Your task to perform on an android device: set default search engine in the chrome app Image 0: 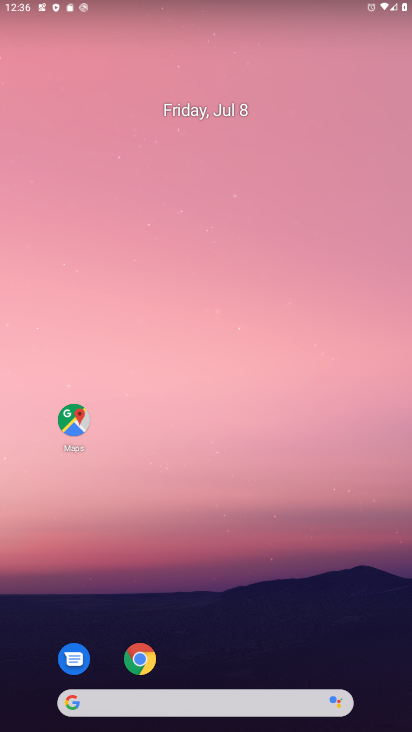
Step 0: click (138, 657)
Your task to perform on an android device: set default search engine in the chrome app Image 1: 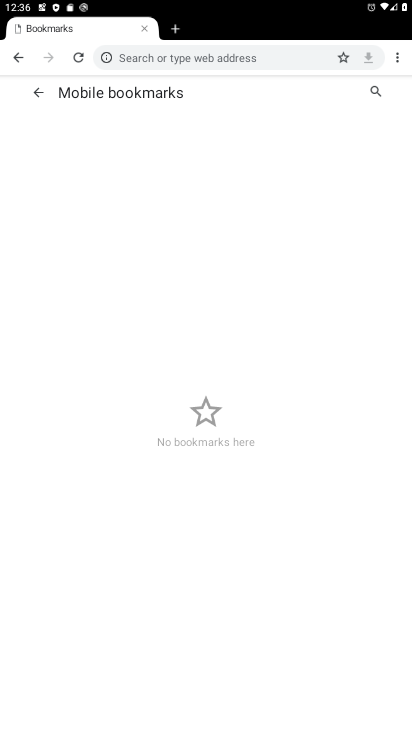
Step 1: click (40, 95)
Your task to perform on an android device: set default search engine in the chrome app Image 2: 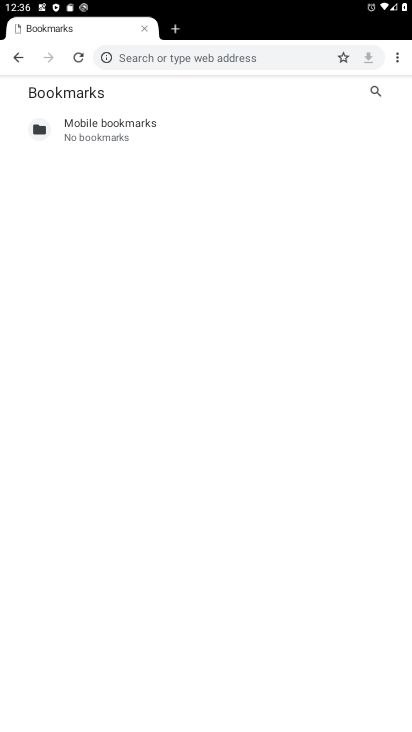
Step 2: click (9, 50)
Your task to perform on an android device: set default search engine in the chrome app Image 3: 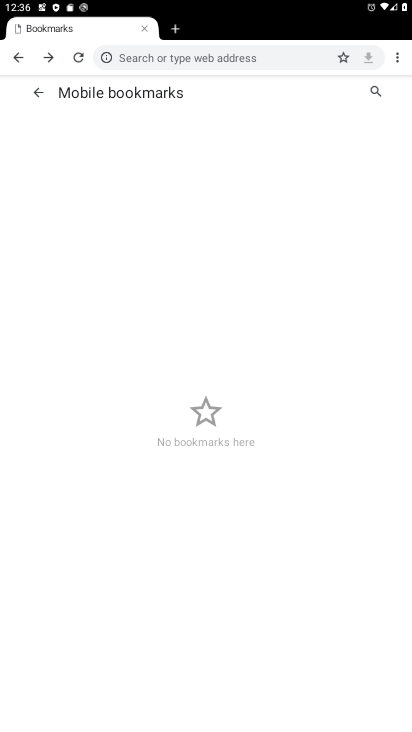
Step 3: click (395, 55)
Your task to perform on an android device: set default search engine in the chrome app Image 4: 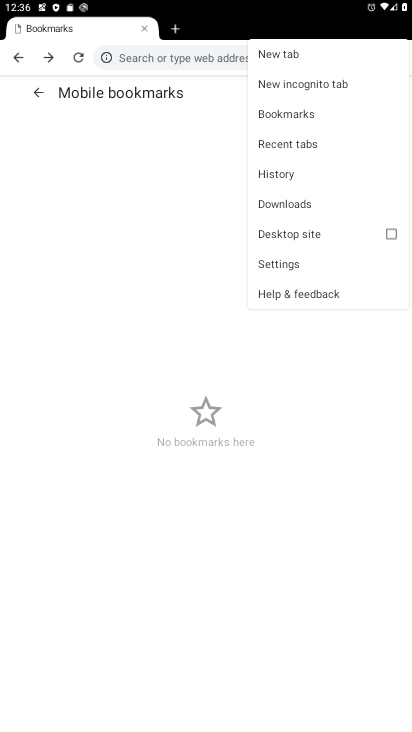
Step 4: click (295, 258)
Your task to perform on an android device: set default search engine in the chrome app Image 5: 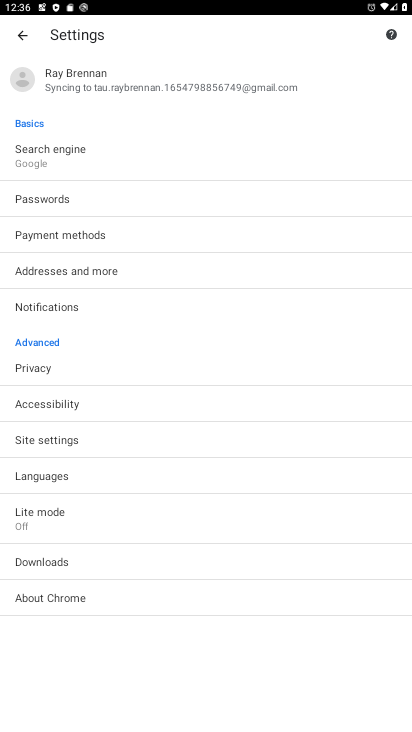
Step 5: click (46, 158)
Your task to perform on an android device: set default search engine in the chrome app Image 6: 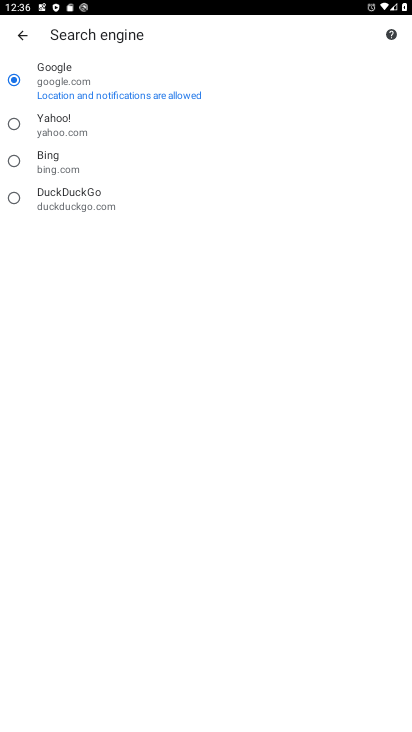
Step 6: click (9, 123)
Your task to perform on an android device: set default search engine in the chrome app Image 7: 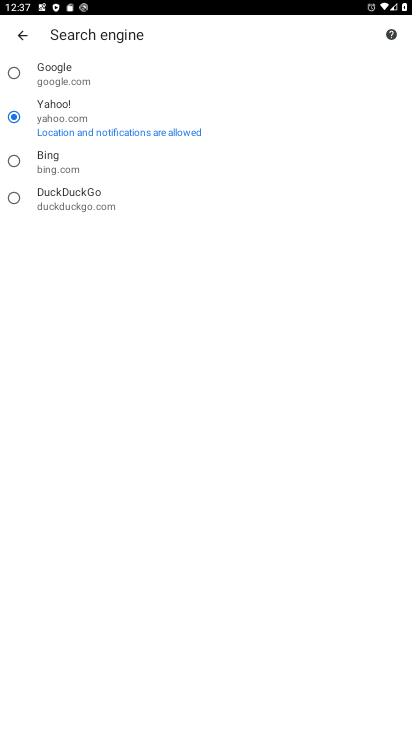
Step 7: task complete